Your task to perform on an android device: Open calendar and show me the first week of next month Image 0: 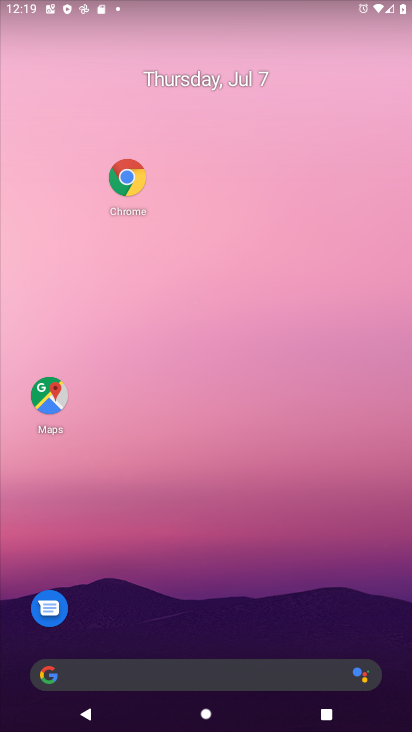
Step 0: drag from (205, 649) to (161, 233)
Your task to perform on an android device: Open calendar and show me the first week of next month Image 1: 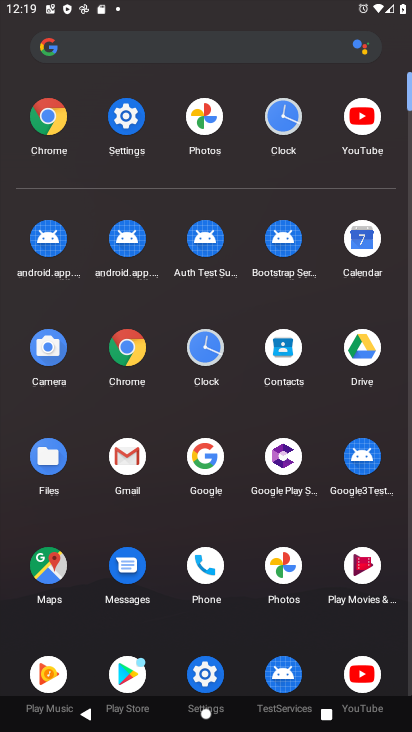
Step 1: click (353, 243)
Your task to perform on an android device: Open calendar and show me the first week of next month Image 2: 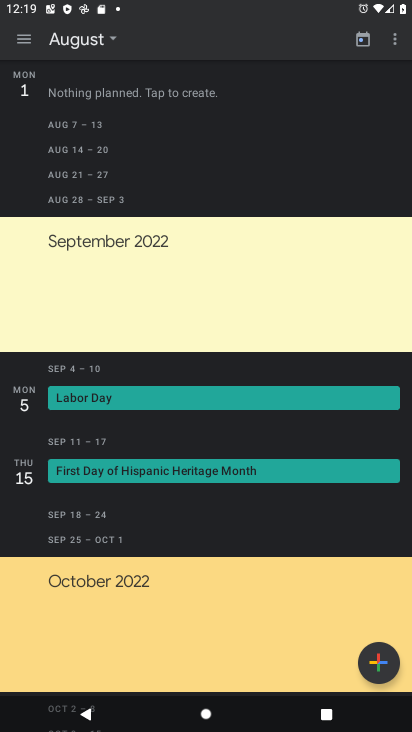
Step 2: task complete